Your task to perform on an android device: Open ESPN.com Image 0: 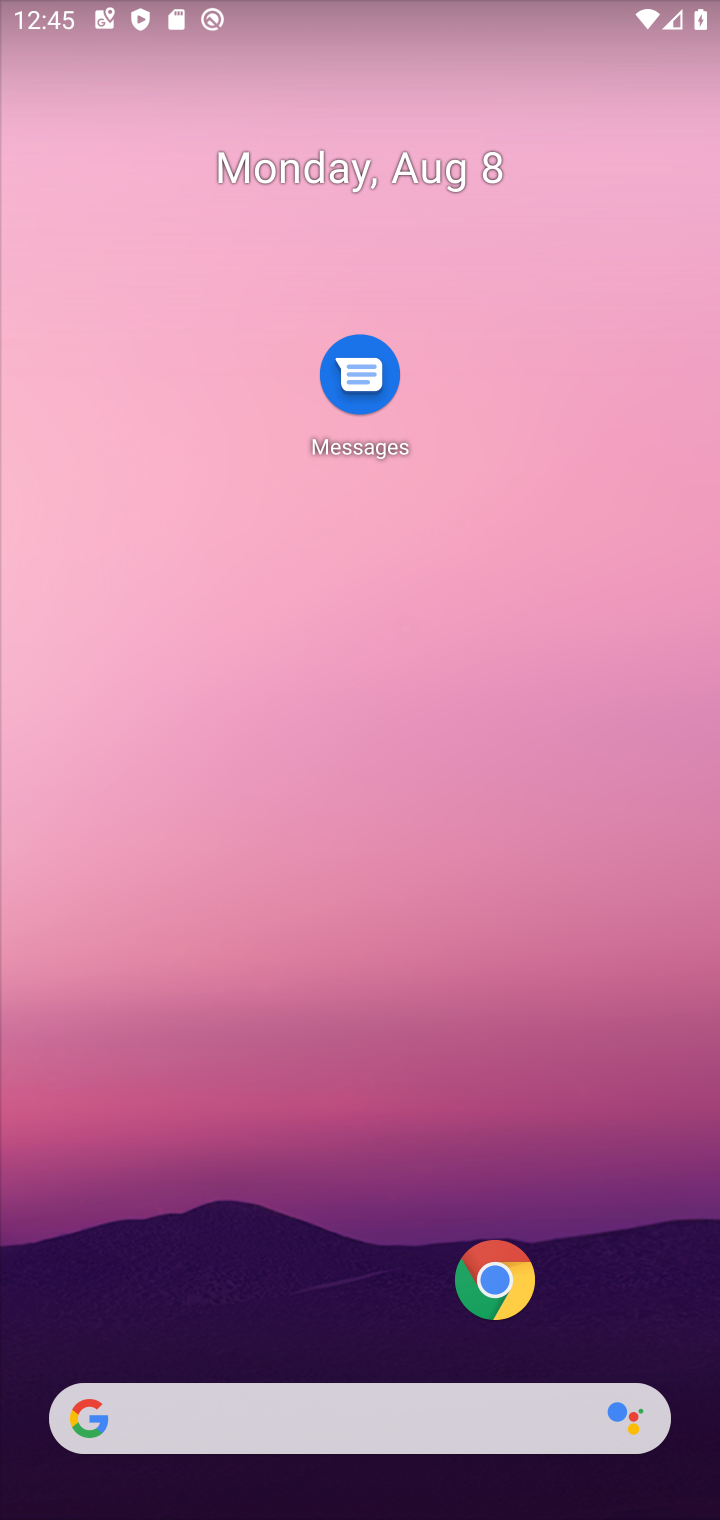
Step 0: click (510, 1274)
Your task to perform on an android device: Open ESPN.com Image 1: 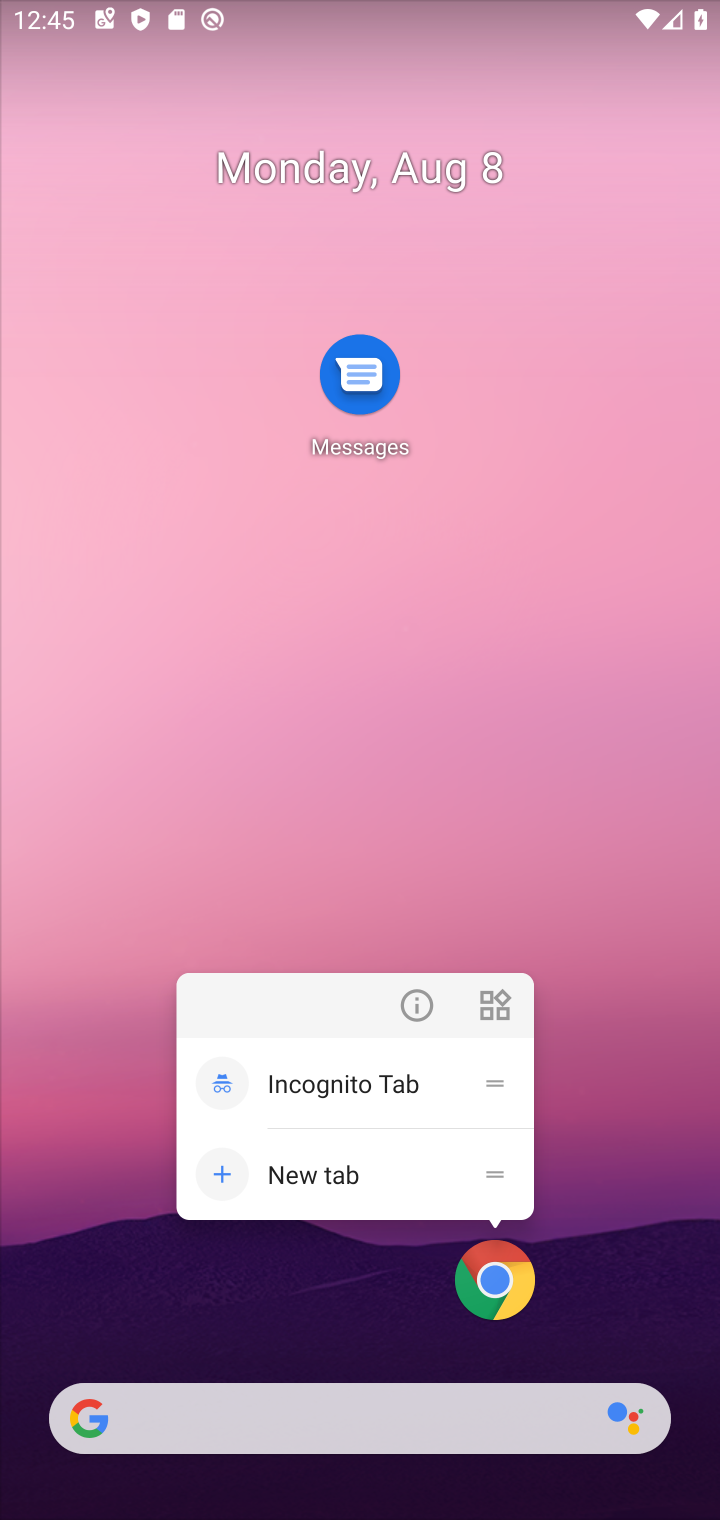
Step 1: click (512, 1274)
Your task to perform on an android device: Open ESPN.com Image 2: 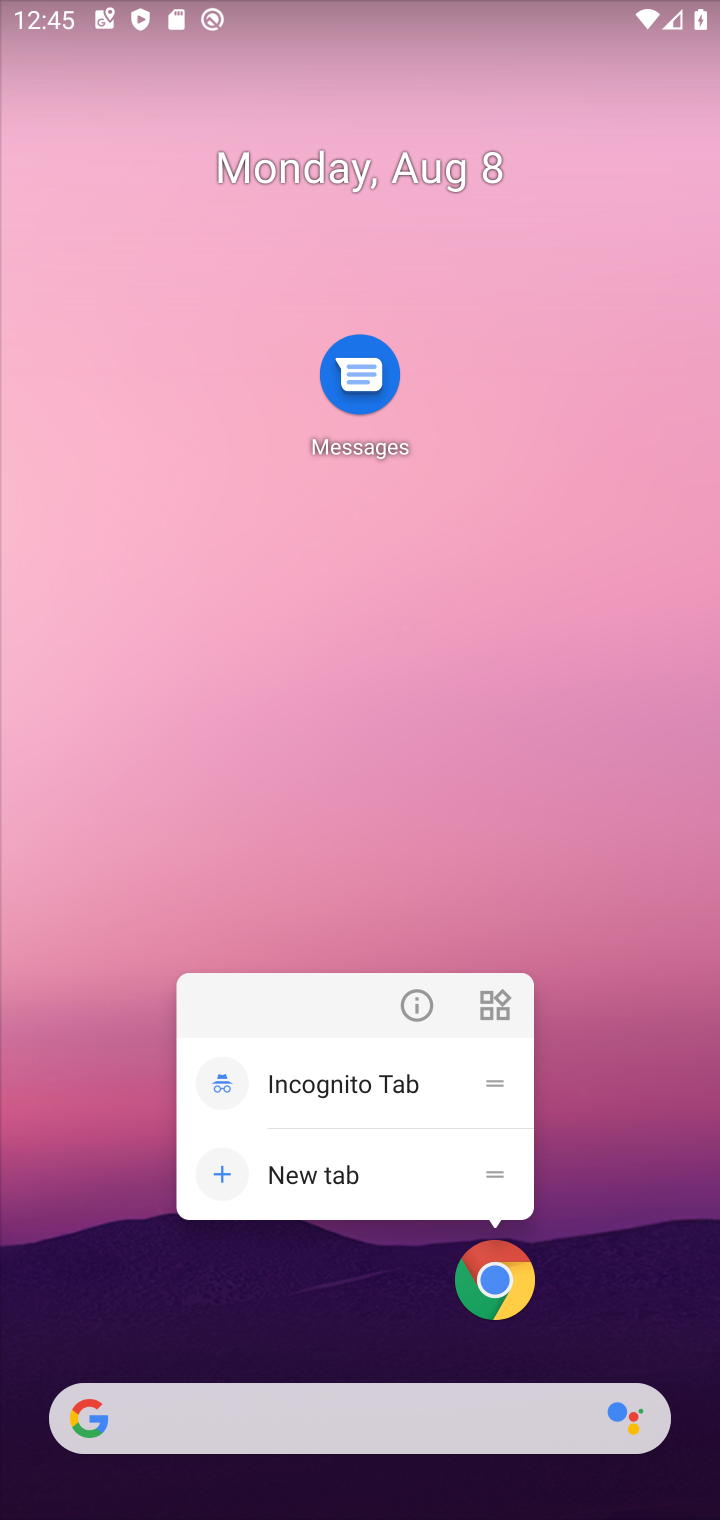
Step 2: click (497, 1286)
Your task to perform on an android device: Open ESPN.com Image 3: 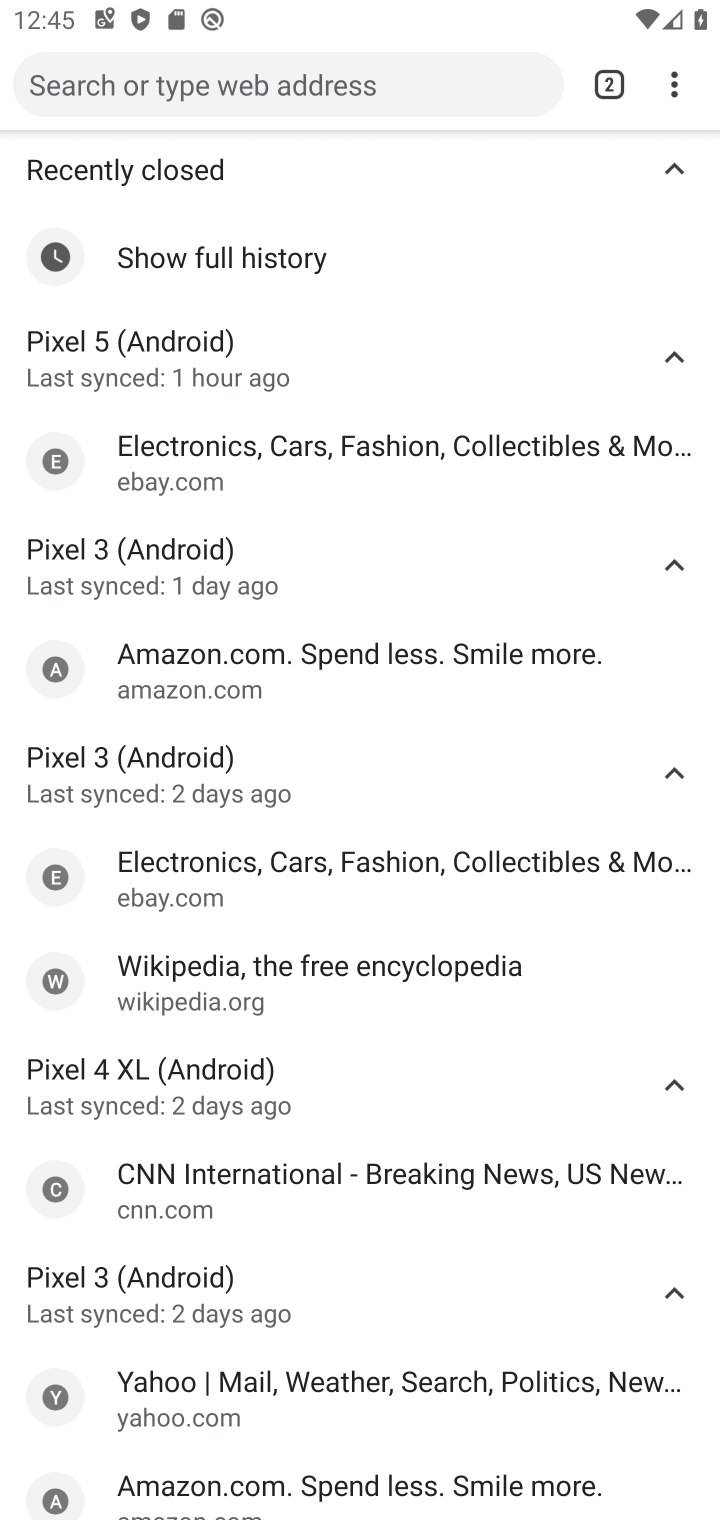
Step 3: click (617, 94)
Your task to perform on an android device: Open ESPN.com Image 4: 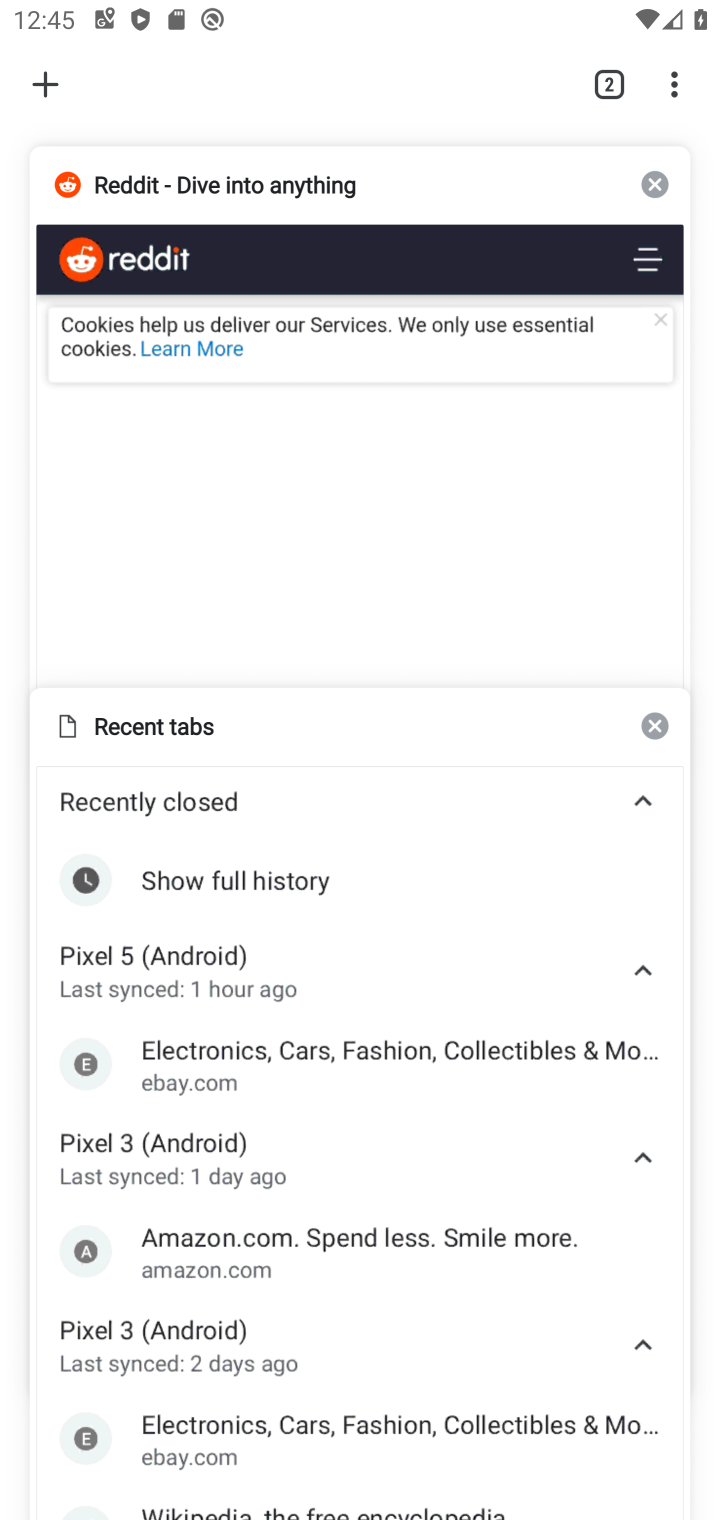
Step 4: click (61, 75)
Your task to perform on an android device: Open ESPN.com Image 5: 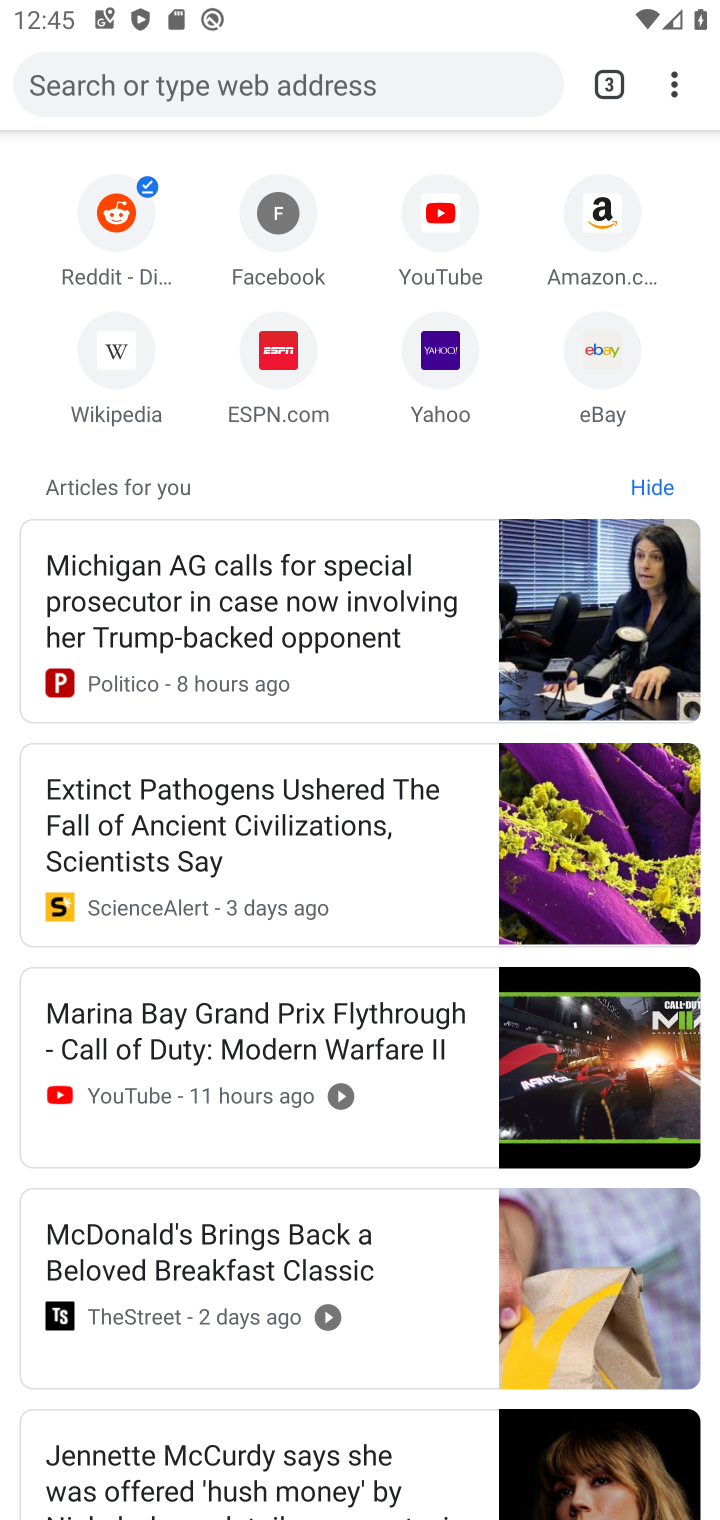
Step 5: click (294, 364)
Your task to perform on an android device: Open ESPN.com Image 6: 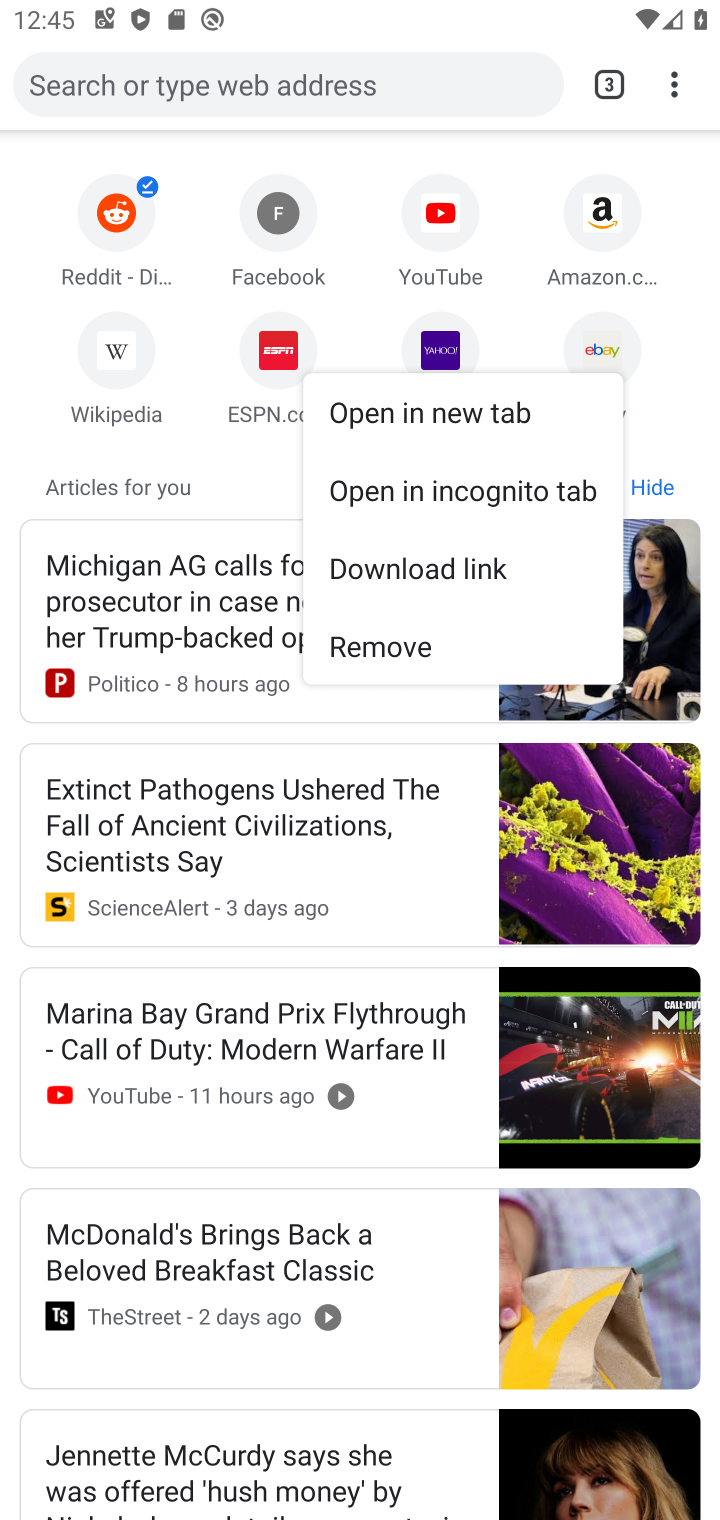
Step 6: click (286, 350)
Your task to perform on an android device: Open ESPN.com Image 7: 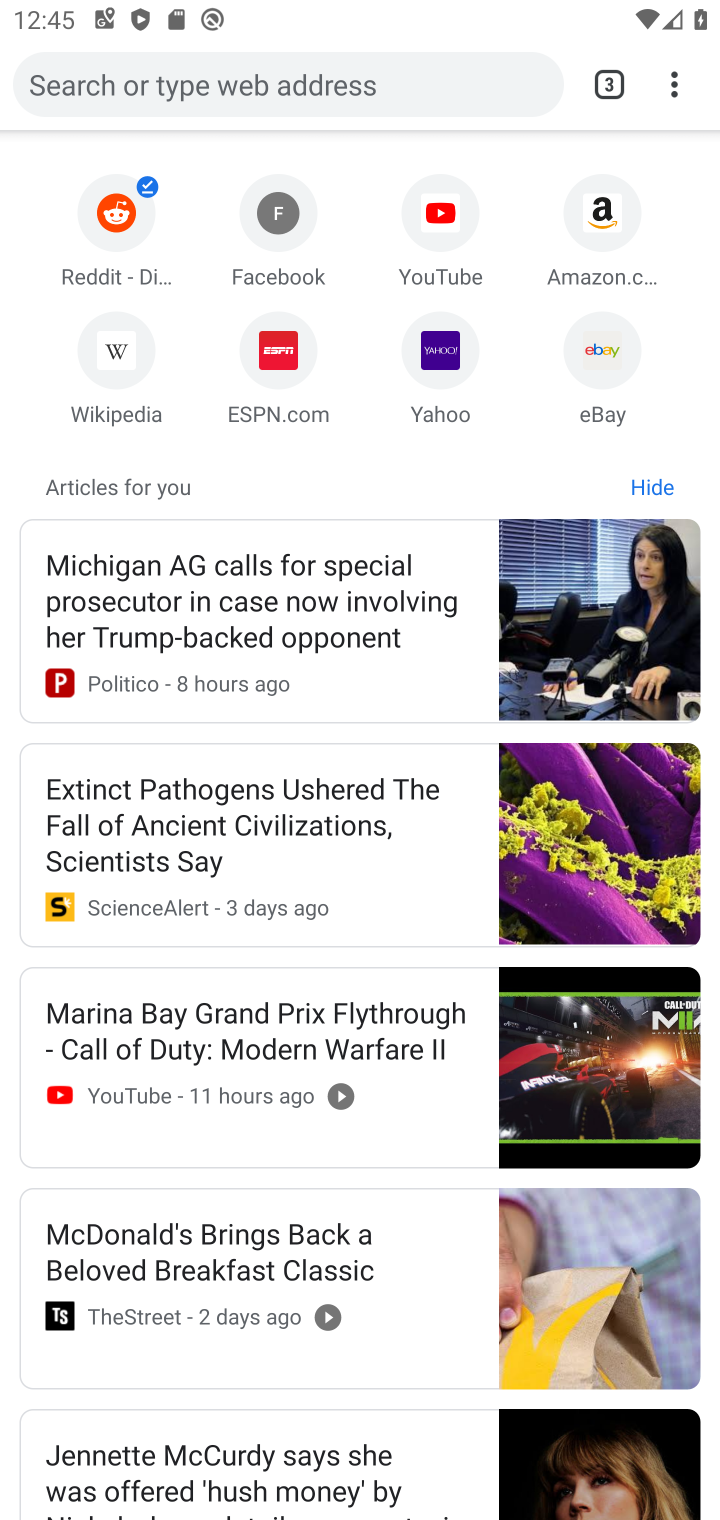
Step 7: click (269, 350)
Your task to perform on an android device: Open ESPN.com Image 8: 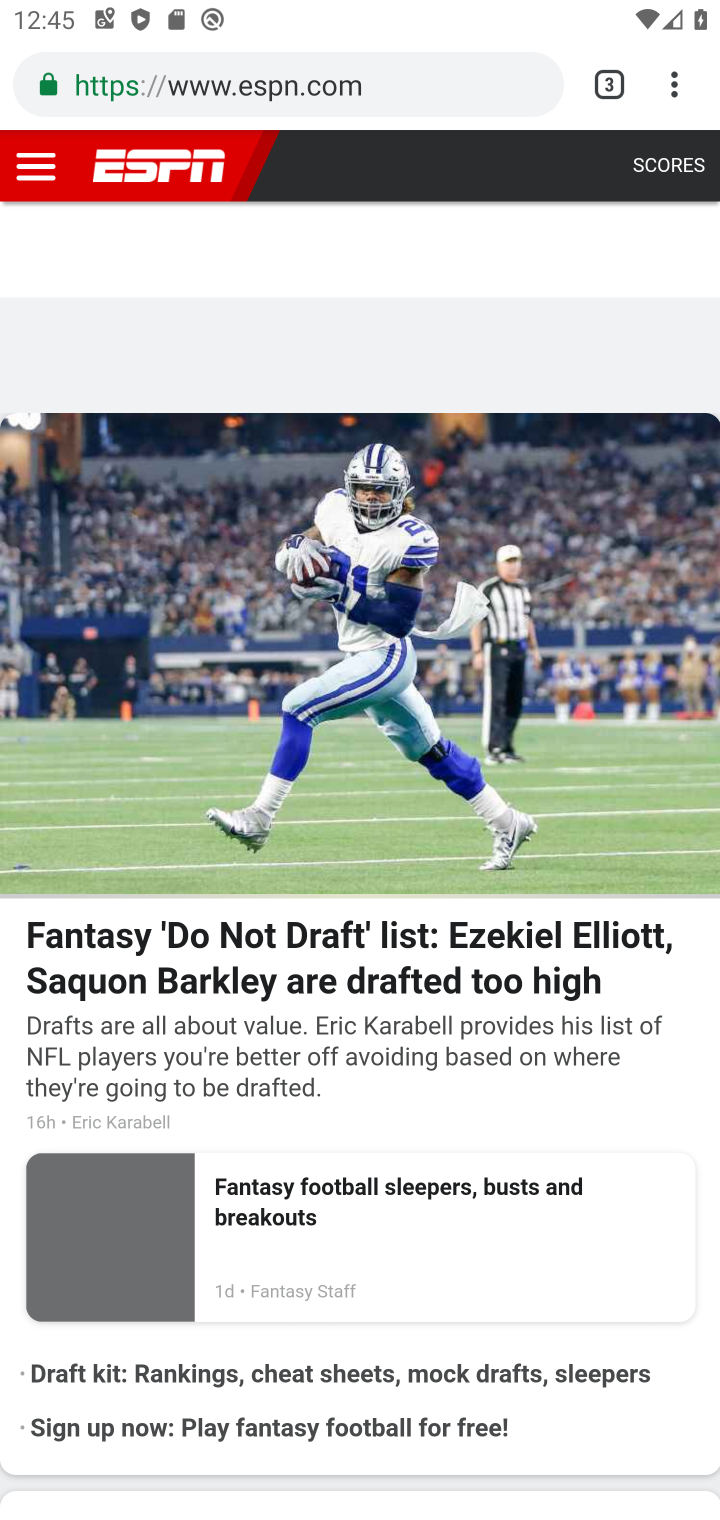
Step 8: task complete